Your task to perform on an android device: open app "Venmo" Image 0: 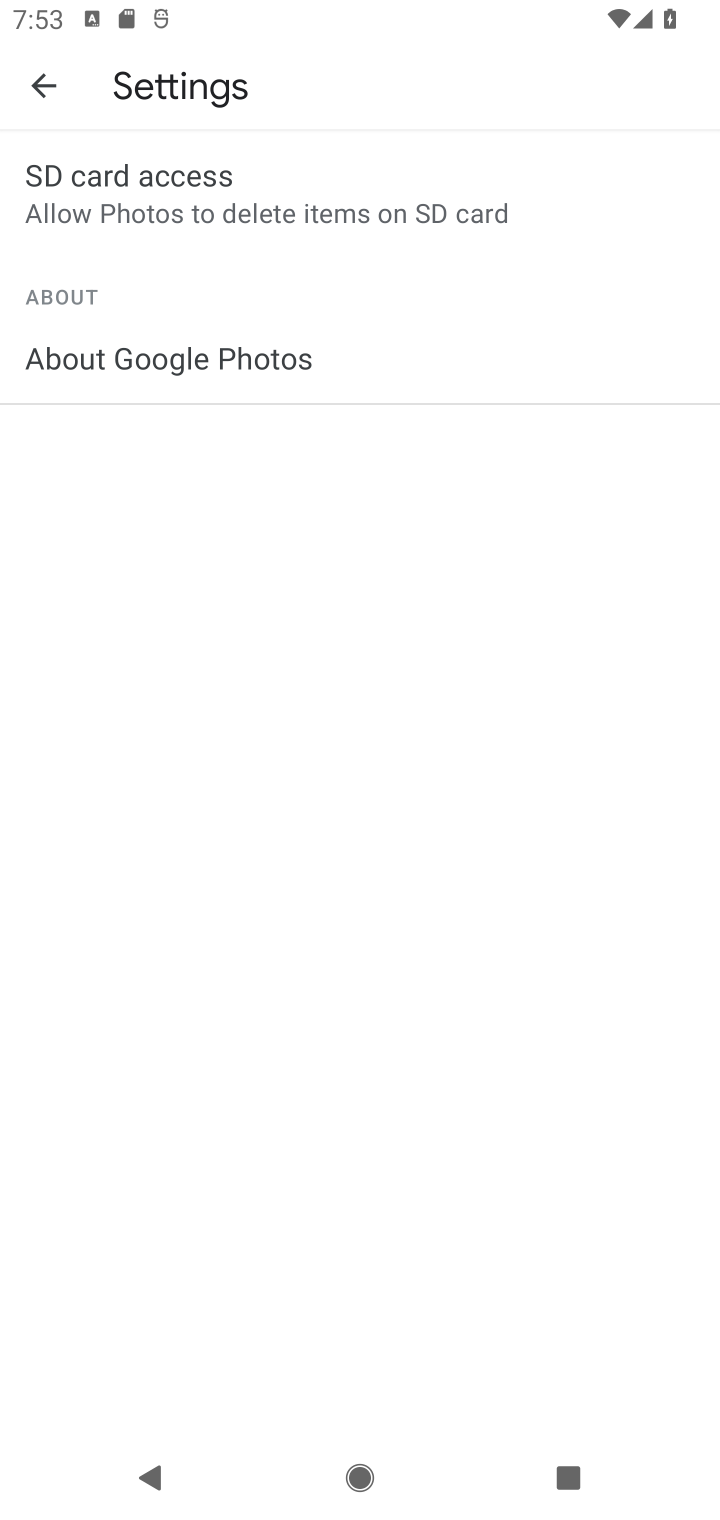
Step 0: press home button
Your task to perform on an android device: open app "Venmo" Image 1: 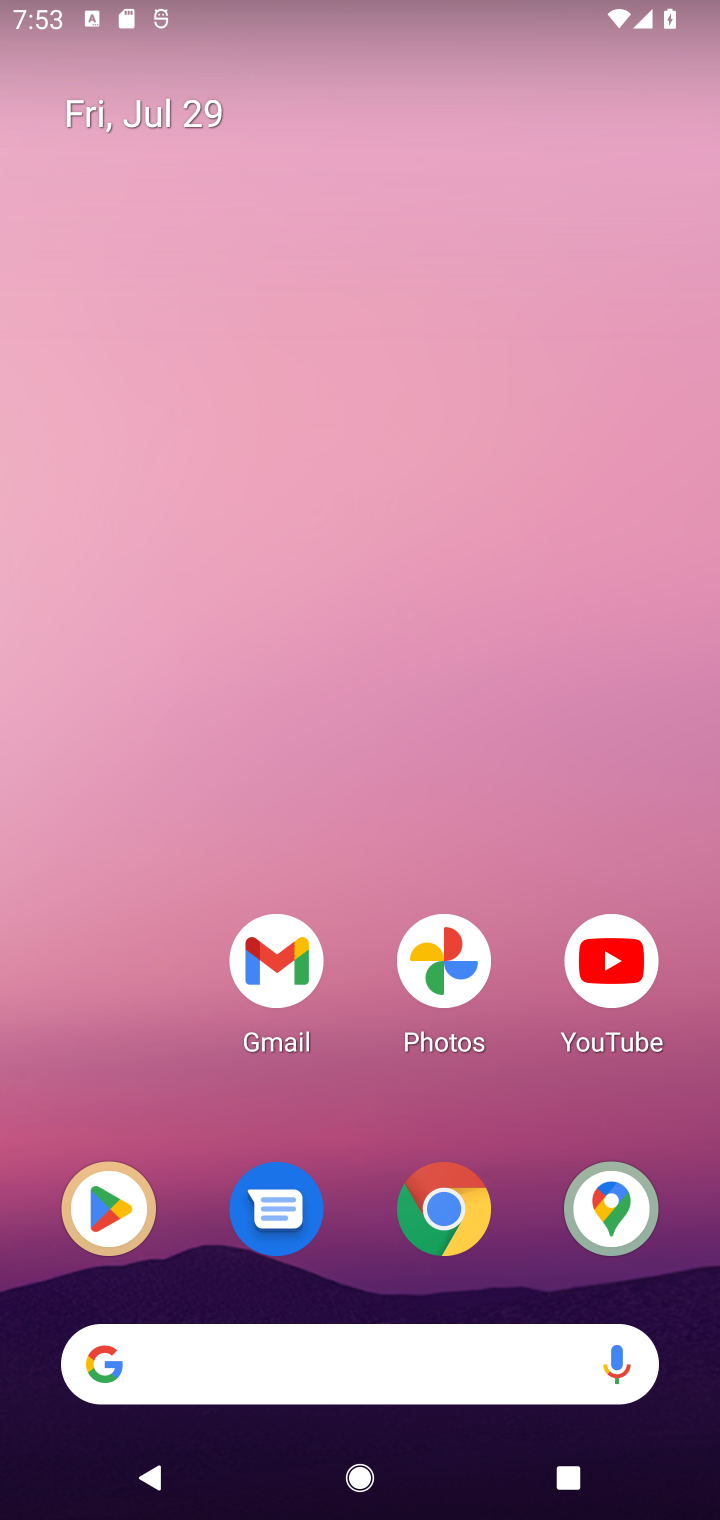
Step 1: click (122, 1212)
Your task to perform on an android device: open app "Venmo" Image 2: 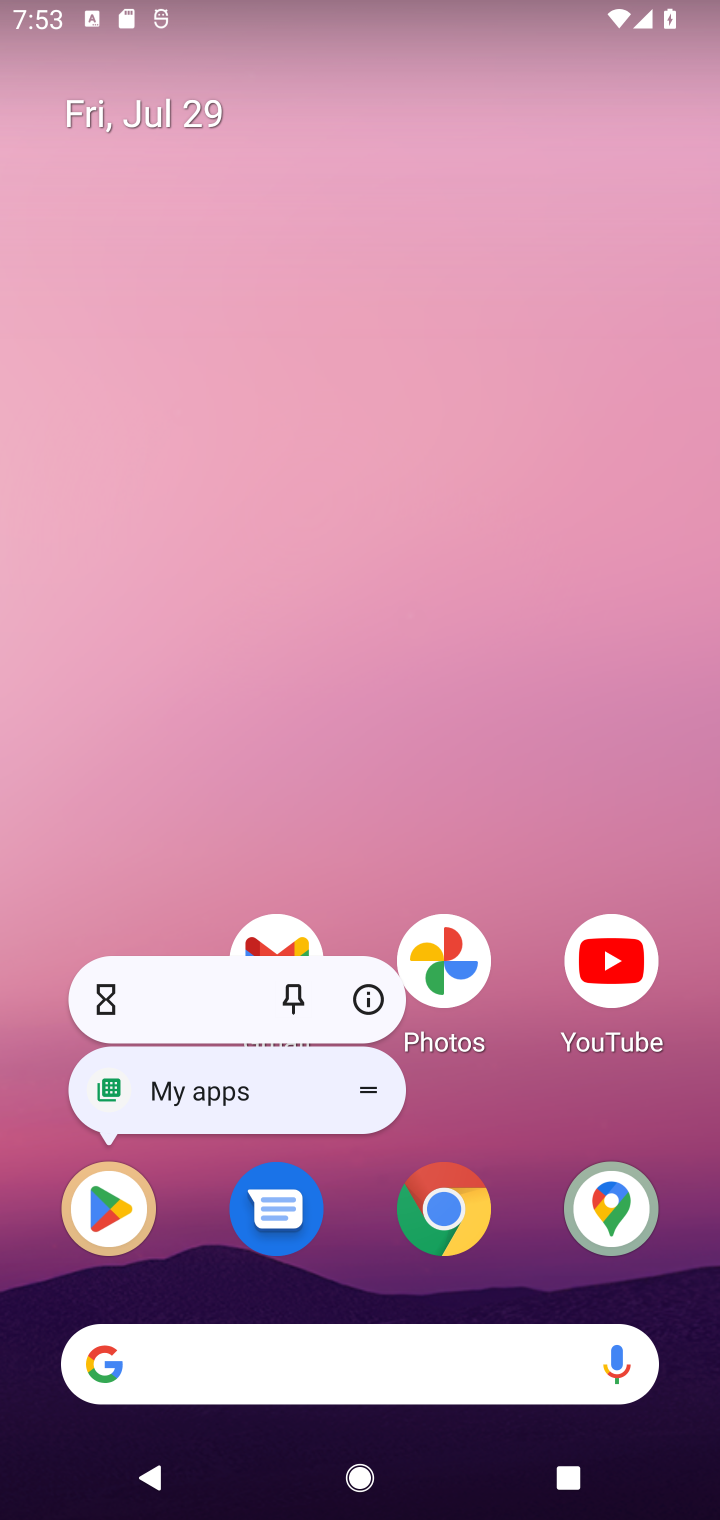
Step 2: click (124, 1217)
Your task to perform on an android device: open app "Venmo" Image 3: 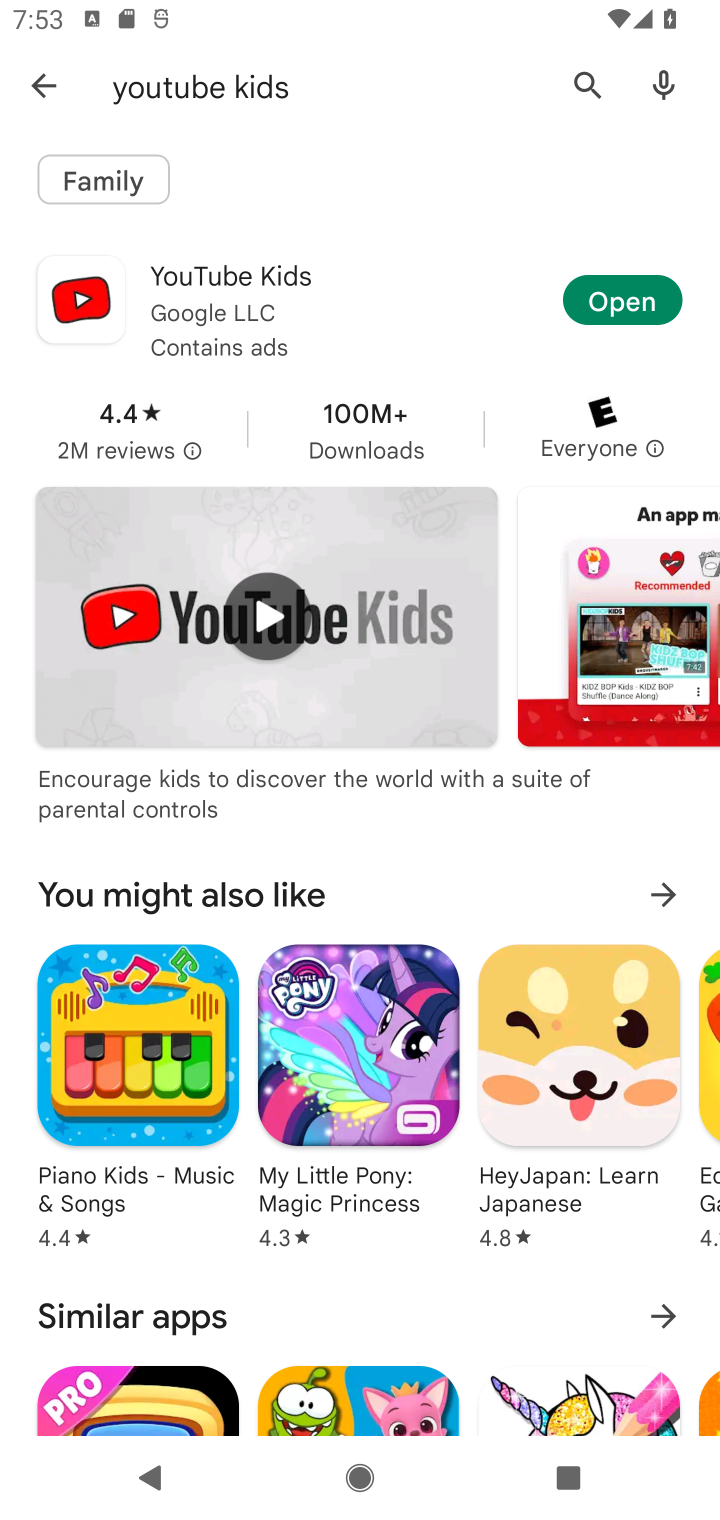
Step 3: click (585, 78)
Your task to perform on an android device: open app "Venmo" Image 4: 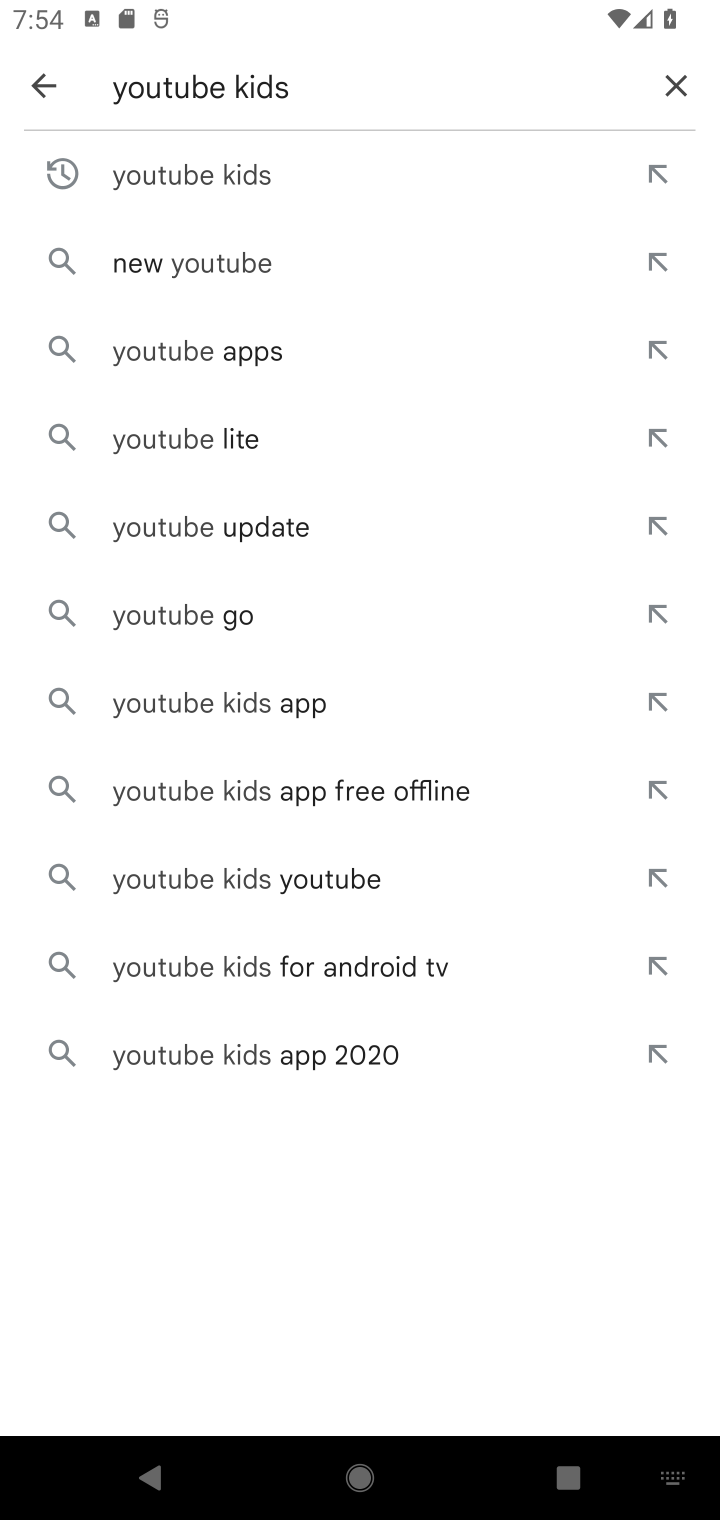
Step 4: click (675, 80)
Your task to perform on an android device: open app "Venmo" Image 5: 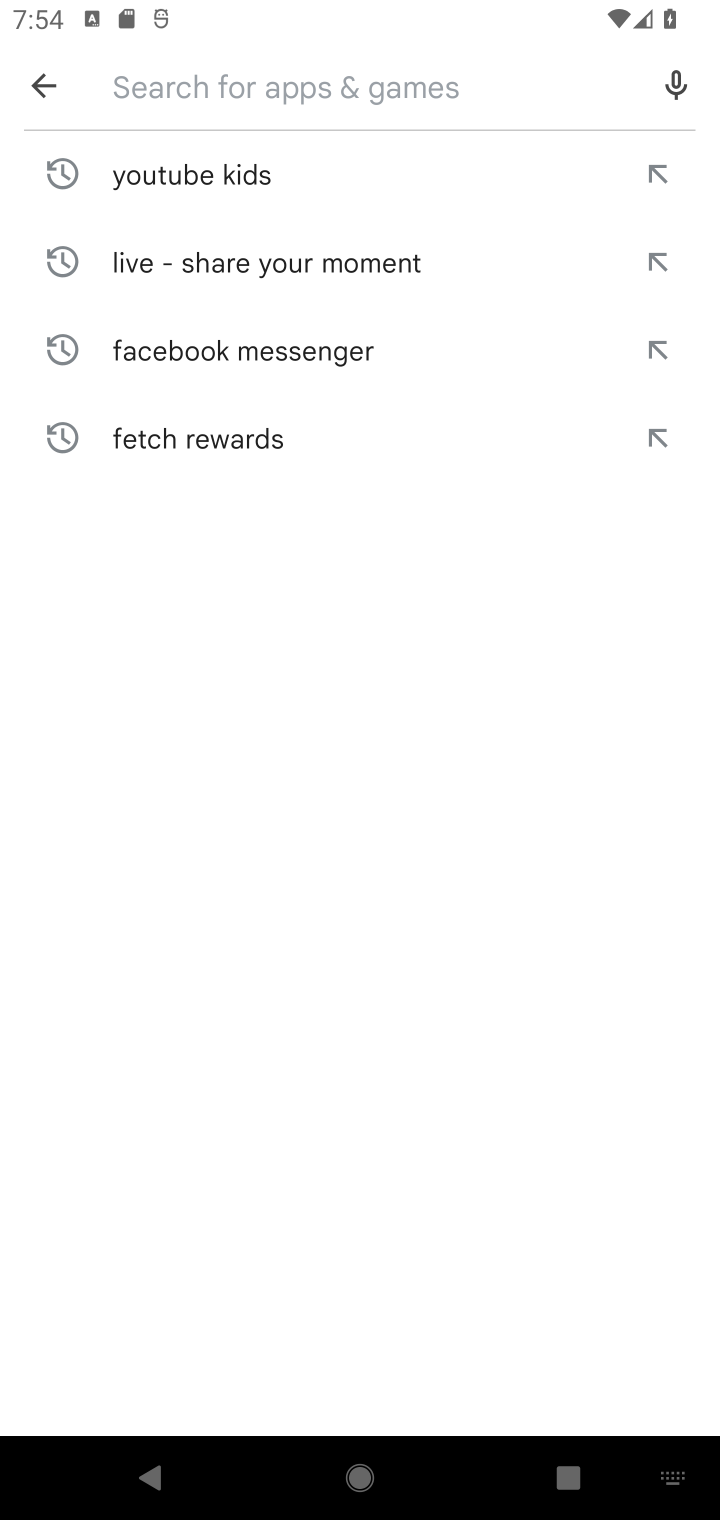
Step 5: type "Venmo"
Your task to perform on an android device: open app "Venmo" Image 6: 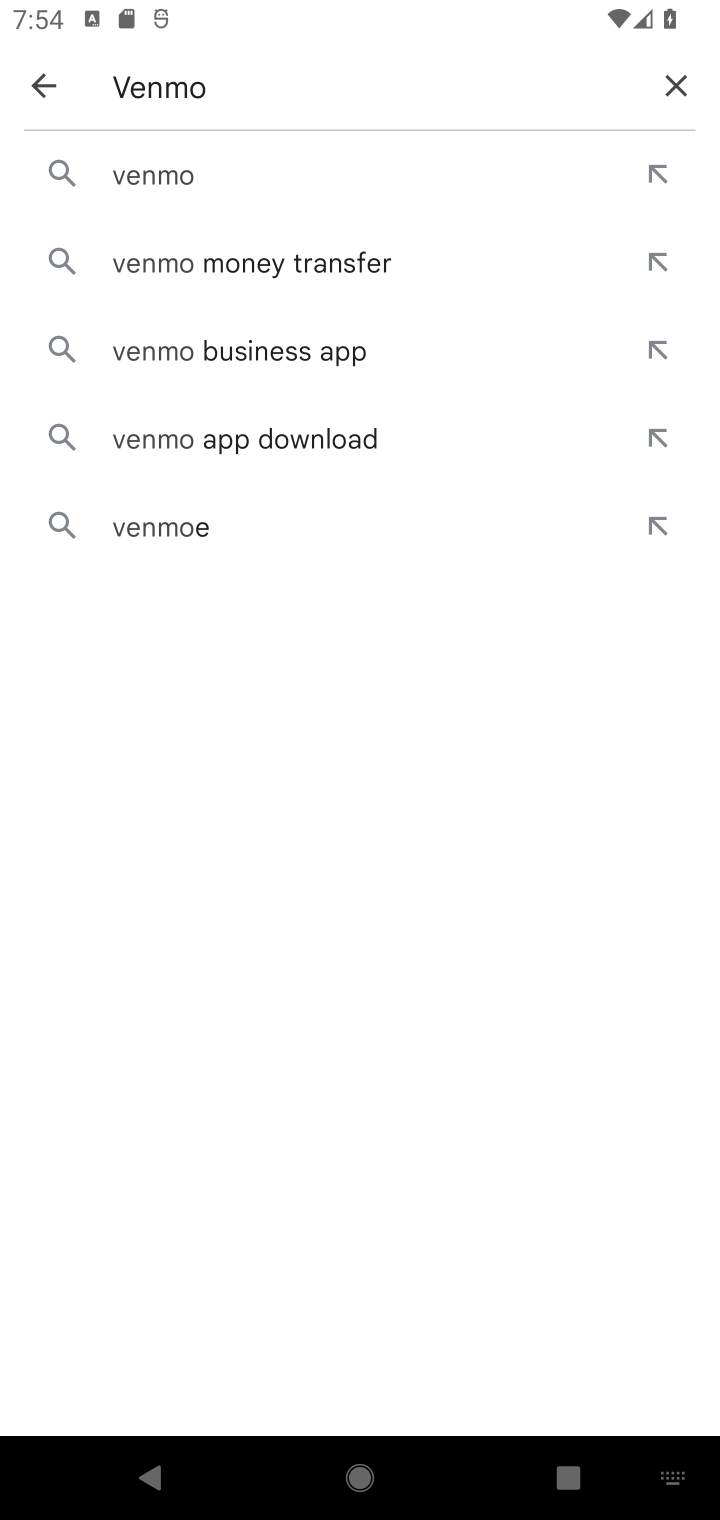
Step 6: click (164, 180)
Your task to perform on an android device: open app "Venmo" Image 7: 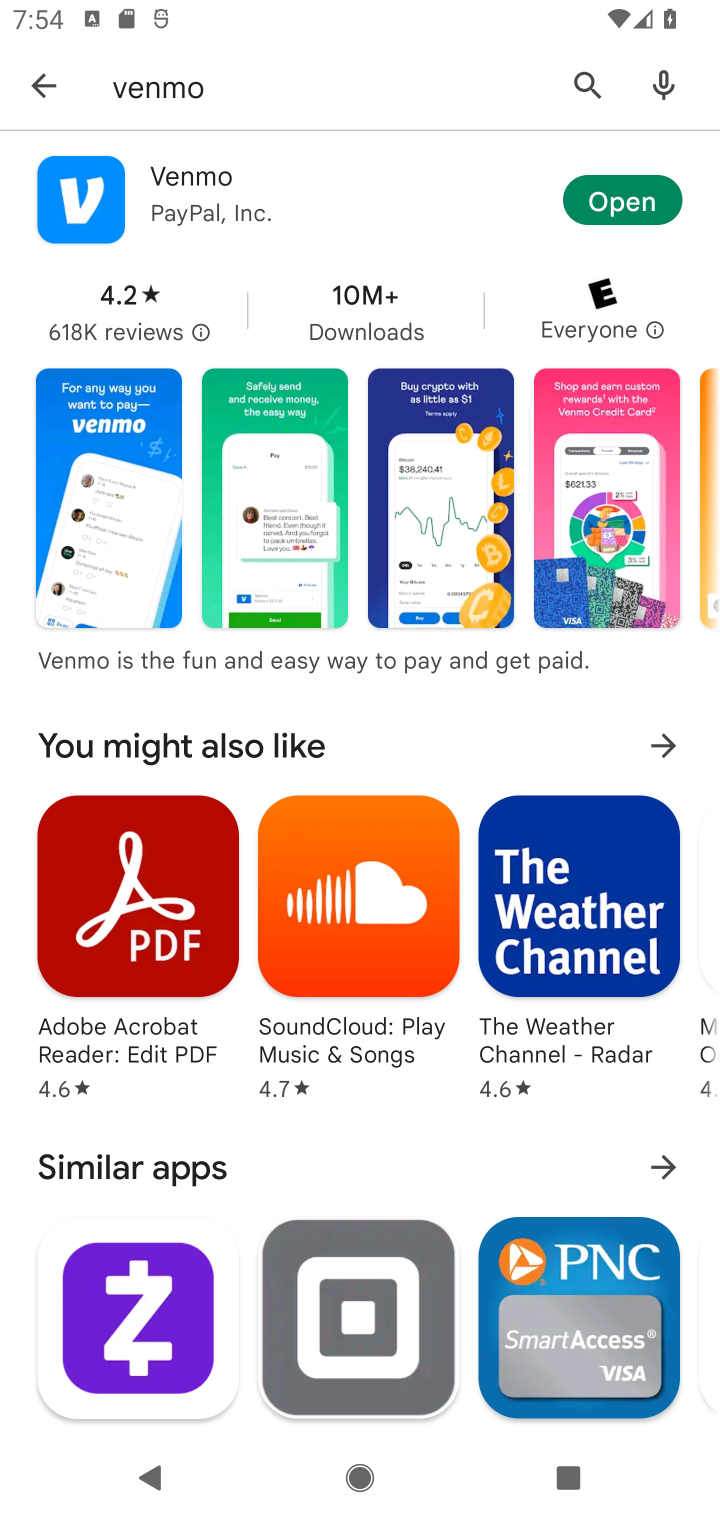
Step 7: click (609, 205)
Your task to perform on an android device: open app "Venmo" Image 8: 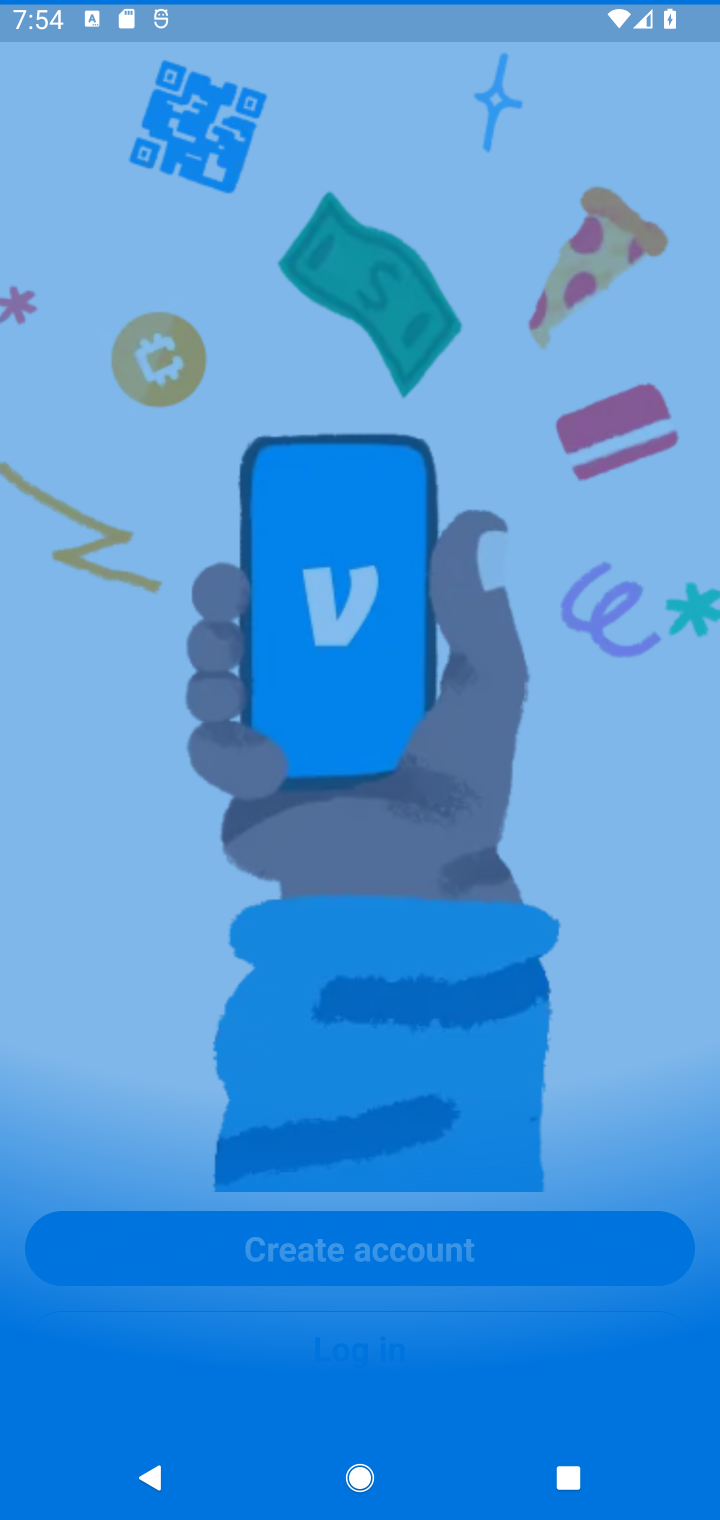
Step 8: task complete